Your task to perform on an android device: Open Android settings Image 0: 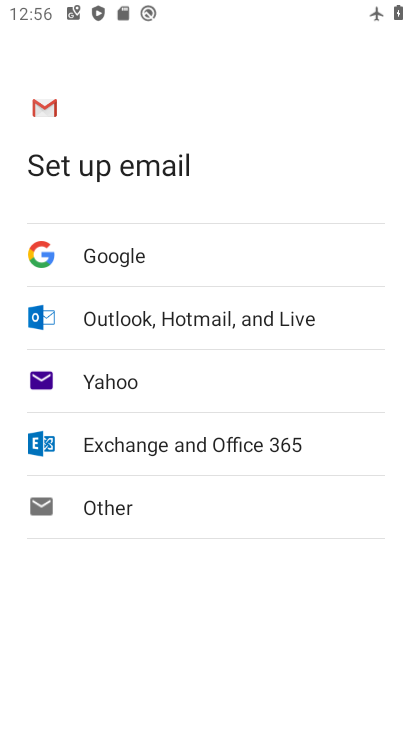
Step 0: press home button
Your task to perform on an android device: Open Android settings Image 1: 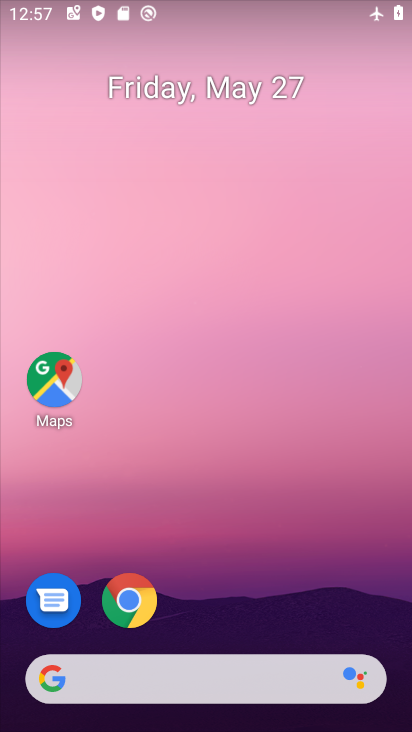
Step 1: drag from (303, 584) to (285, 10)
Your task to perform on an android device: Open Android settings Image 2: 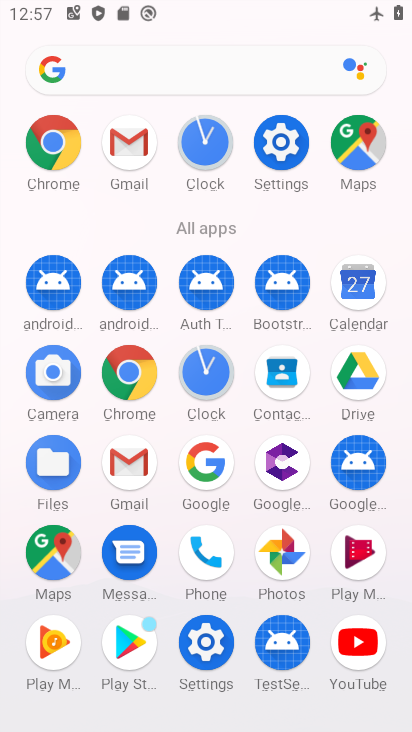
Step 2: click (283, 143)
Your task to perform on an android device: Open Android settings Image 3: 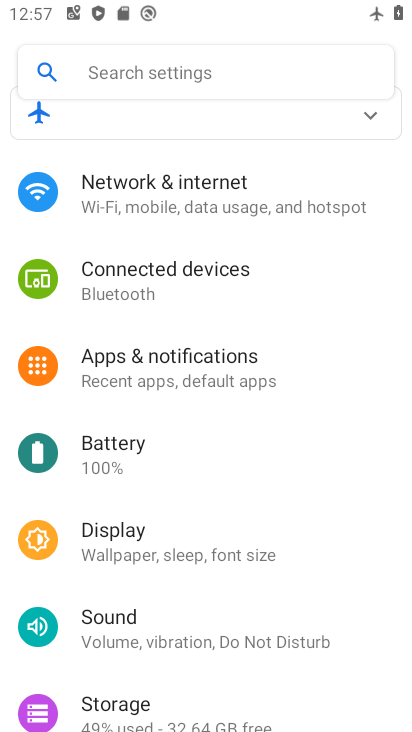
Step 3: drag from (232, 615) to (207, 180)
Your task to perform on an android device: Open Android settings Image 4: 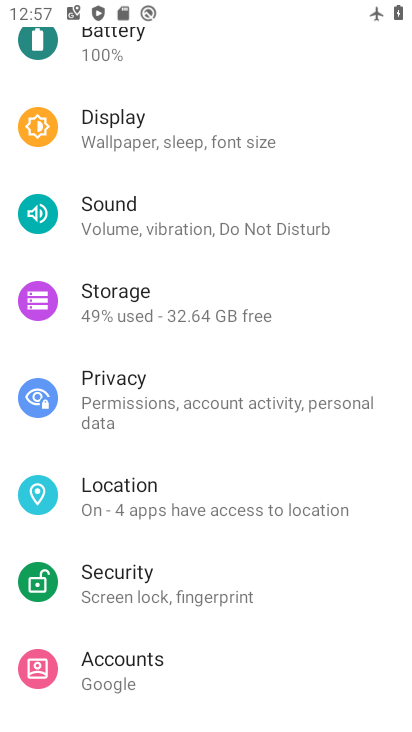
Step 4: drag from (196, 638) to (196, 198)
Your task to perform on an android device: Open Android settings Image 5: 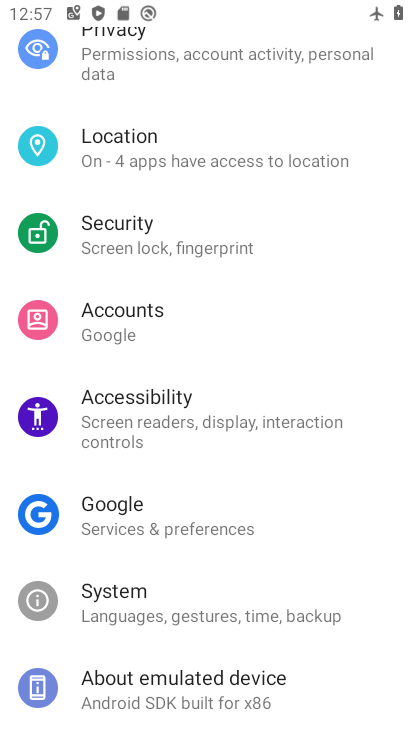
Step 5: drag from (206, 610) to (221, 156)
Your task to perform on an android device: Open Android settings Image 6: 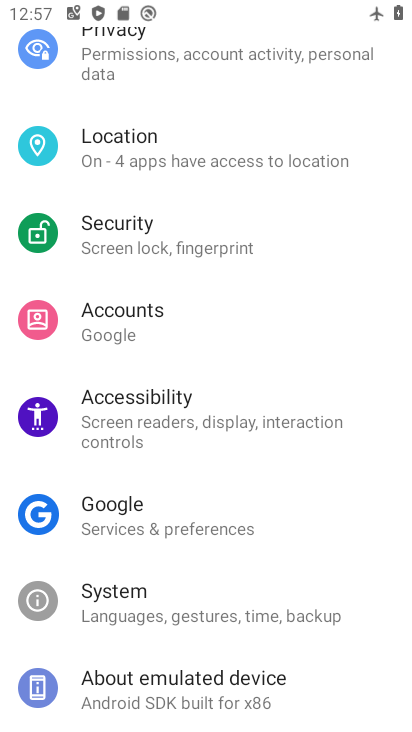
Step 6: click (243, 678)
Your task to perform on an android device: Open Android settings Image 7: 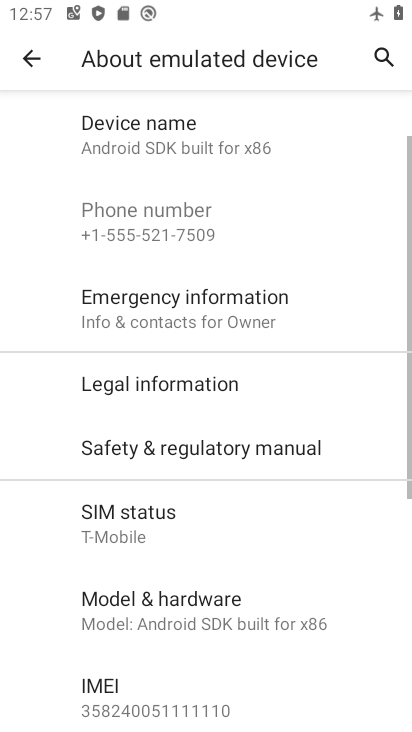
Step 7: drag from (274, 663) to (260, 273)
Your task to perform on an android device: Open Android settings Image 8: 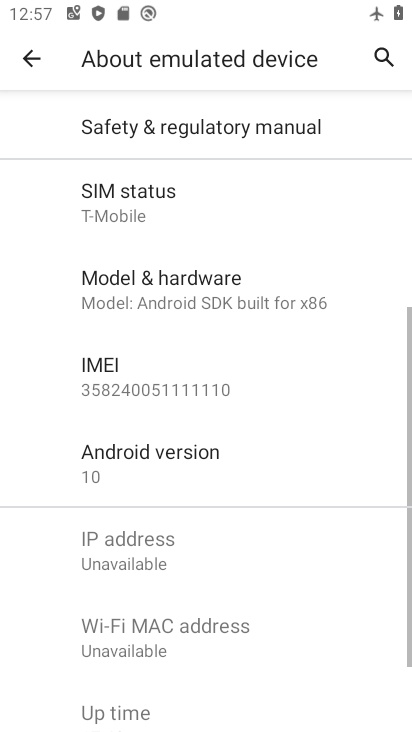
Step 8: click (201, 454)
Your task to perform on an android device: Open Android settings Image 9: 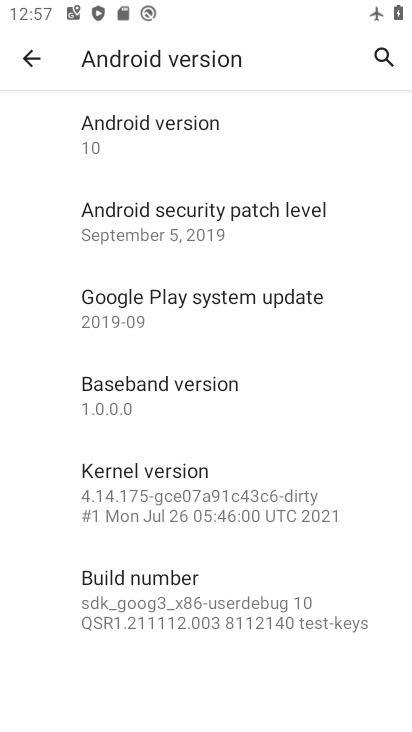
Step 9: task complete